Your task to perform on an android device: When is my next meeting? Image 0: 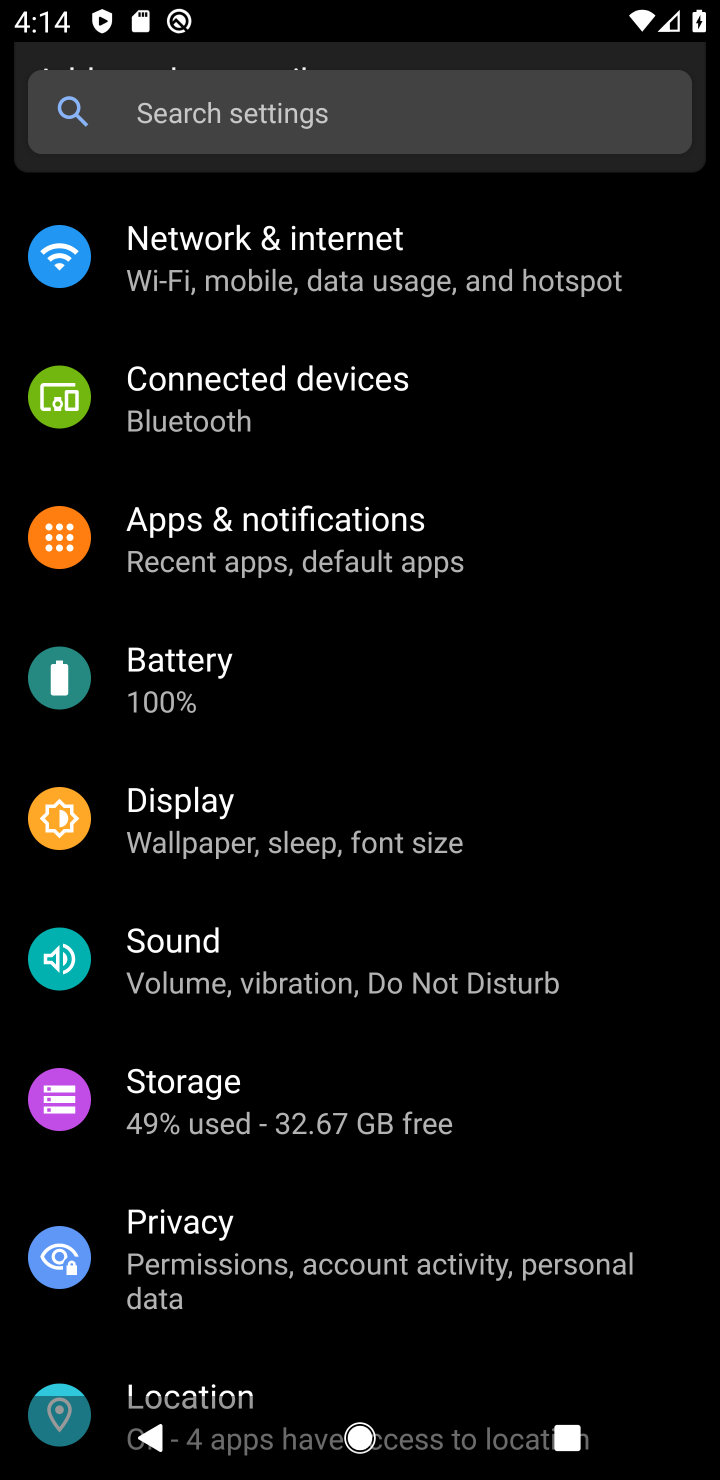
Step 0: press home button
Your task to perform on an android device: When is my next meeting? Image 1: 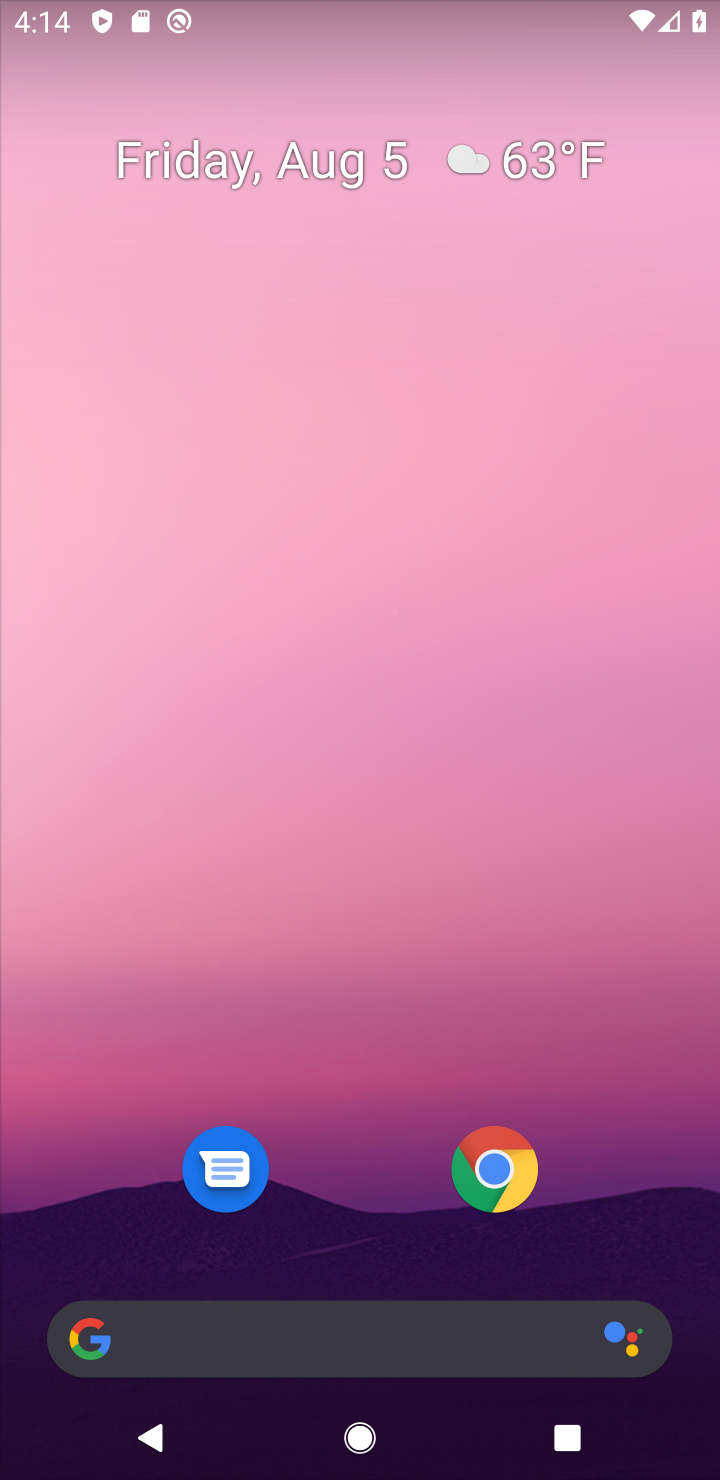
Step 1: drag from (303, 1257) to (310, 368)
Your task to perform on an android device: When is my next meeting? Image 2: 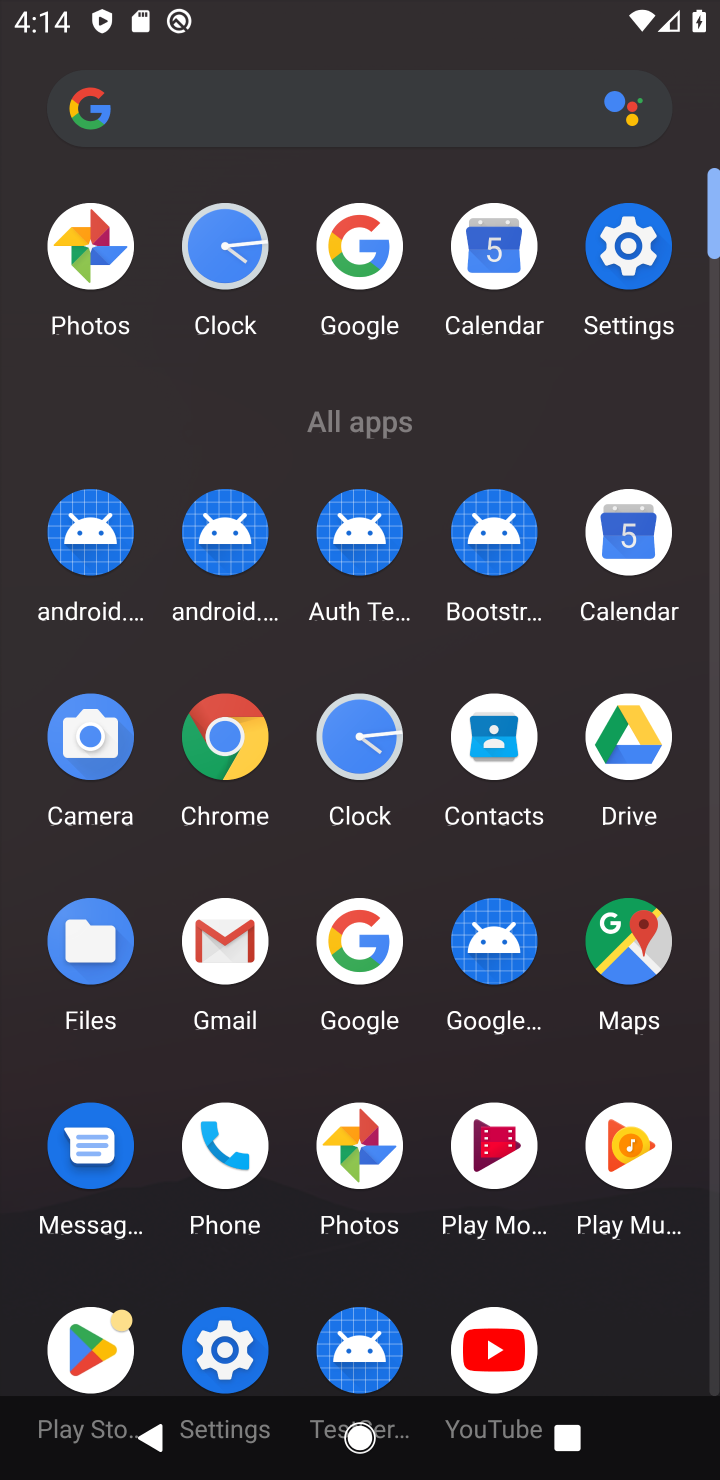
Step 2: click (622, 544)
Your task to perform on an android device: When is my next meeting? Image 3: 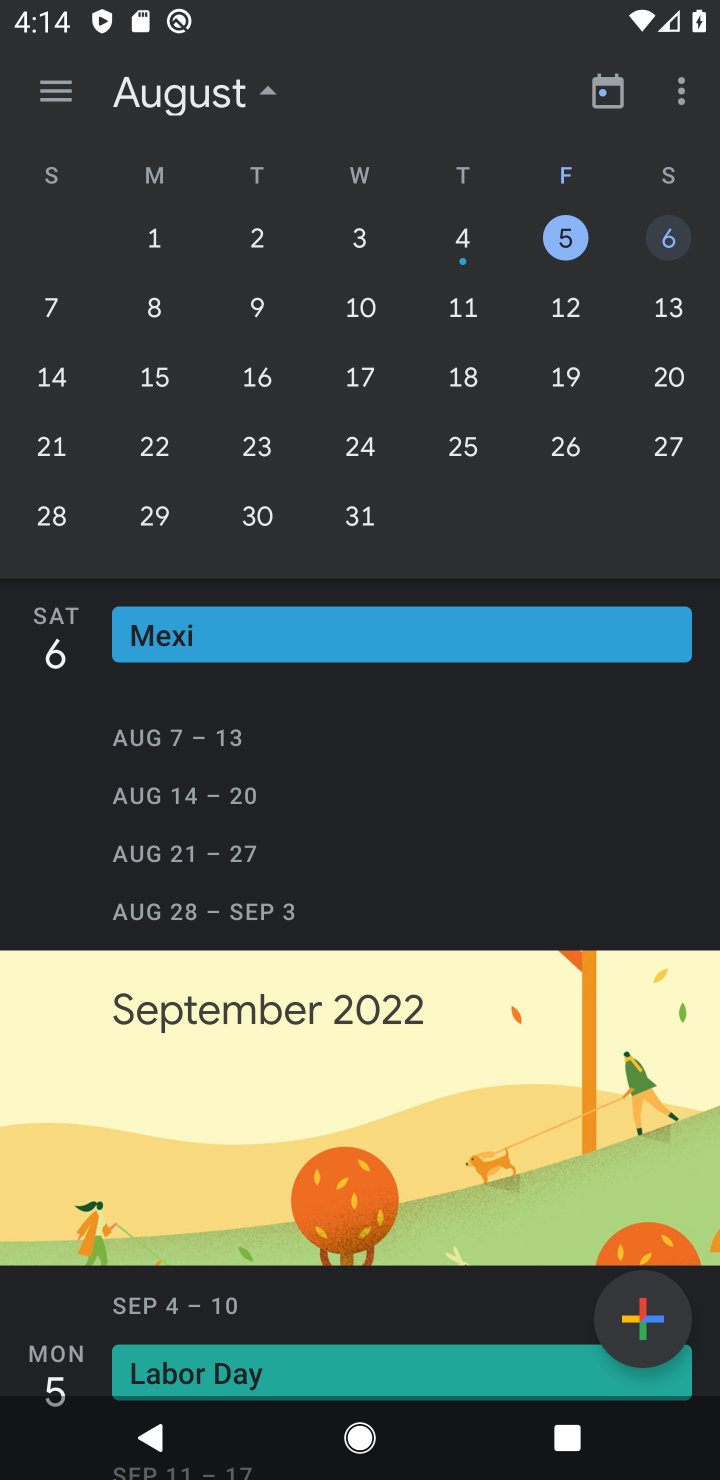
Step 3: click (581, 241)
Your task to perform on an android device: When is my next meeting? Image 4: 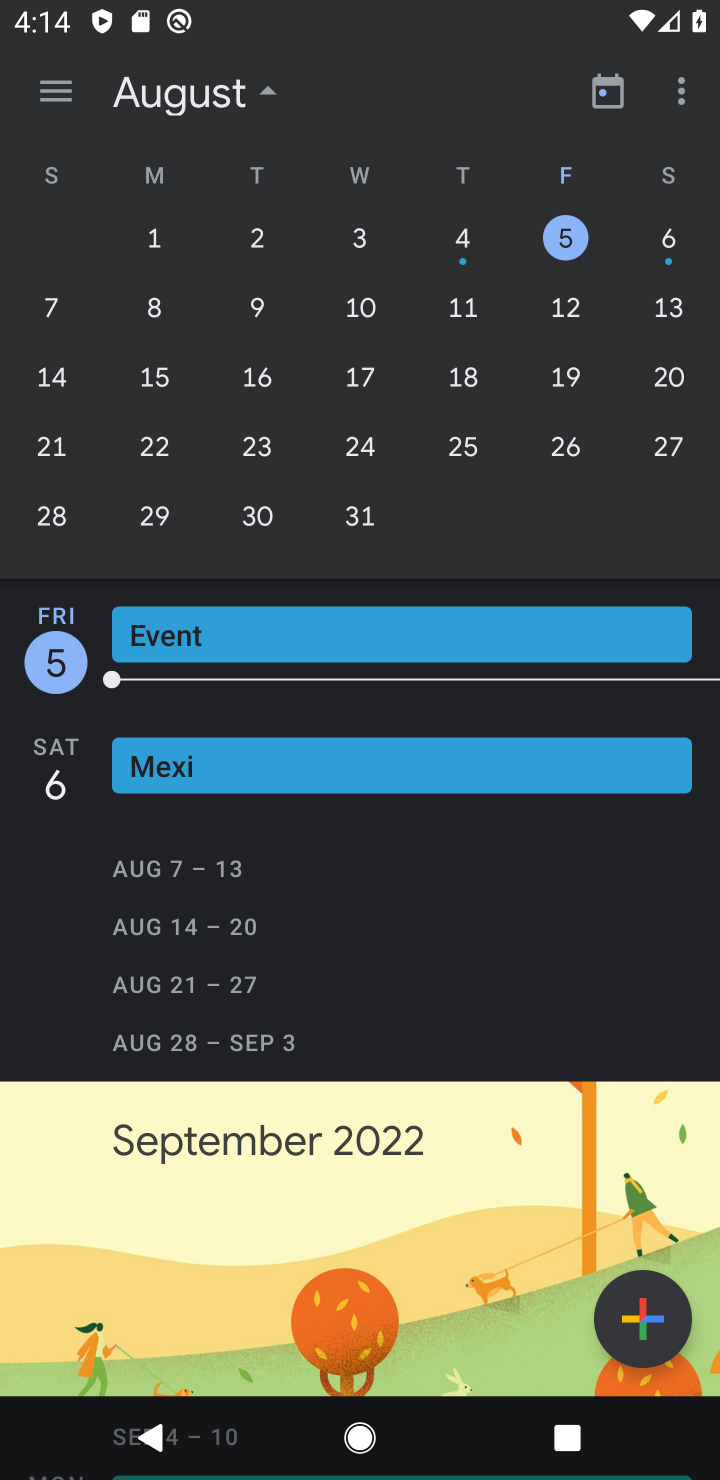
Step 4: click (676, 254)
Your task to perform on an android device: When is my next meeting? Image 5: 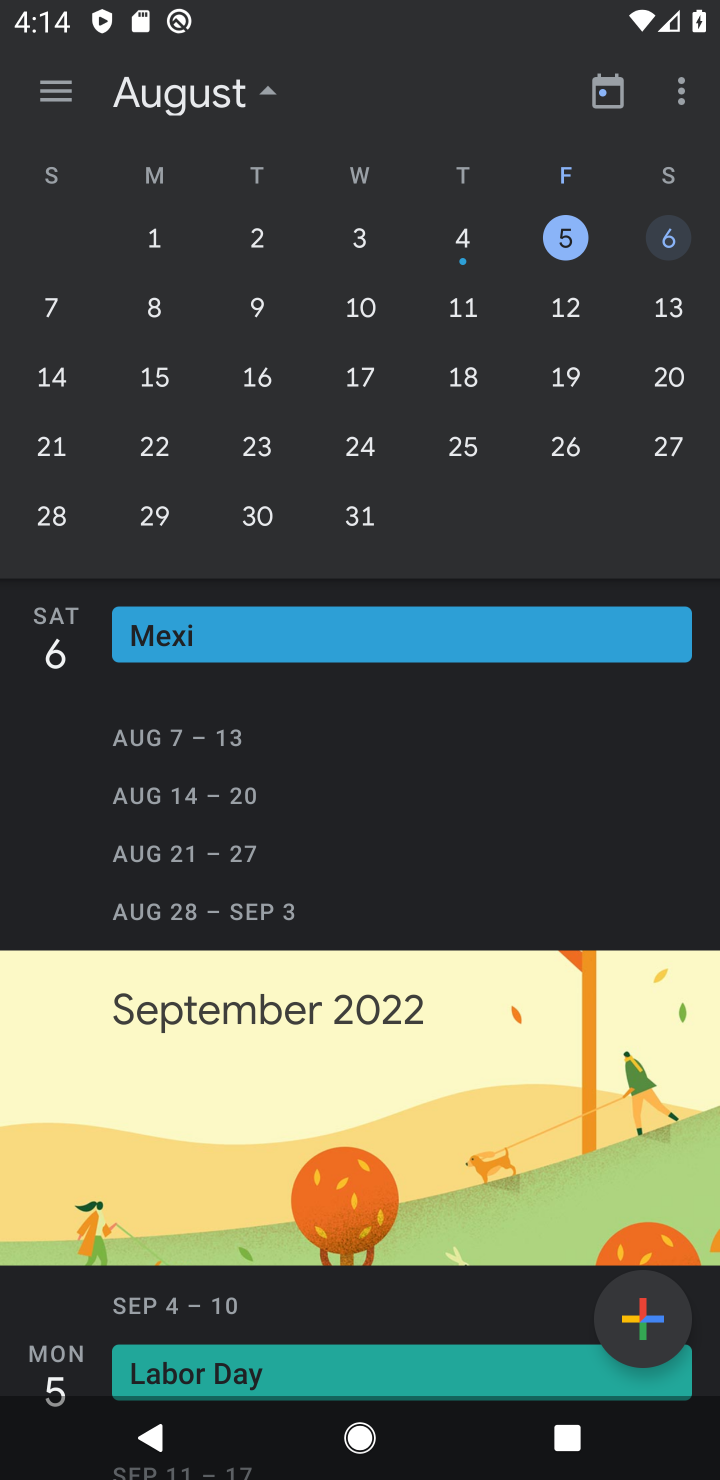
Step 5: task complete